Your task to perform on an android device: Open calendar and show me the fourth week of next month Image 0: 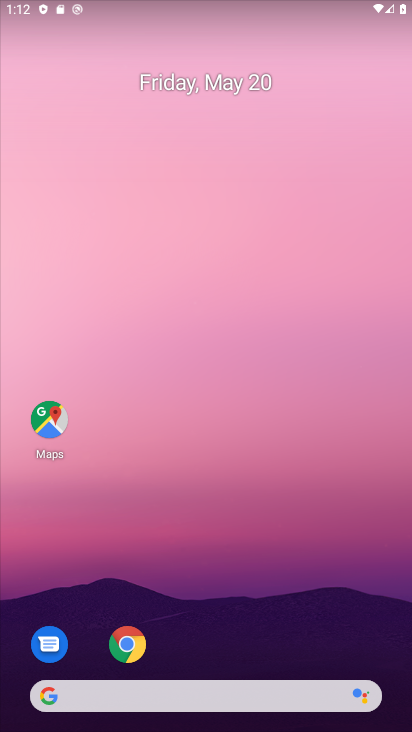
Step 0: click (175, 75)
Your task to perform on an android device: Open calendar and show me the fourth week of next month Image 1: 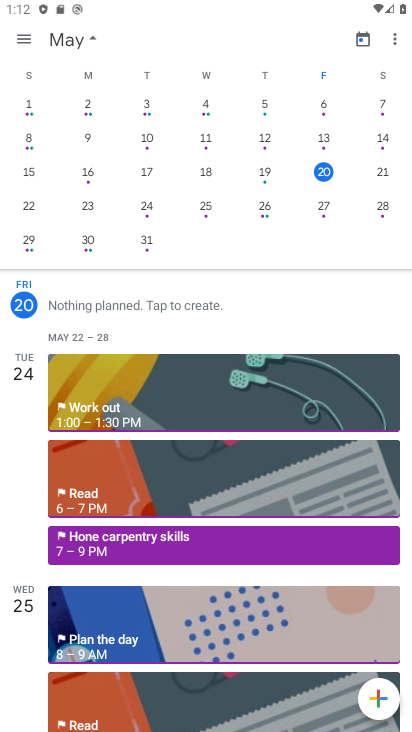
Step 1: drag from (343, 238) to (14, 247)
Your task to perform on an android device: Open calendar and show me the fourth week of next month Image 2: 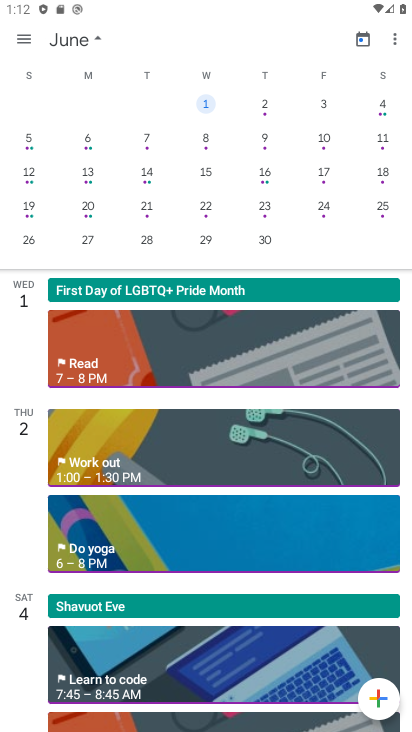
Step 2: click (324, 199)
Your task to perform on an android device: Open calendar and show me the fourth week of next month Image 3: 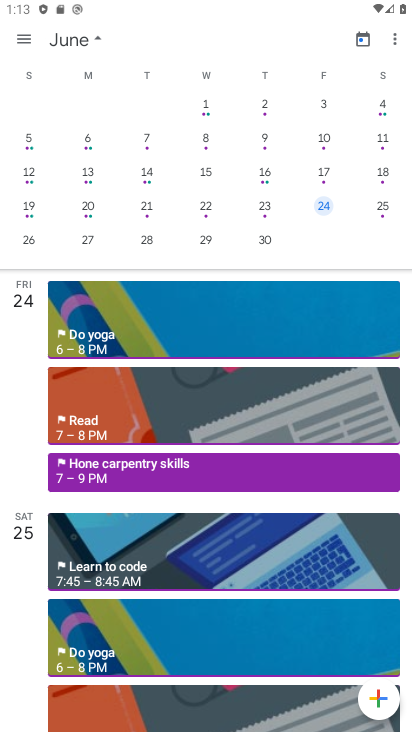
Step 3: task complete